Your task to perform on an android device: turn notification dots off Image 0: 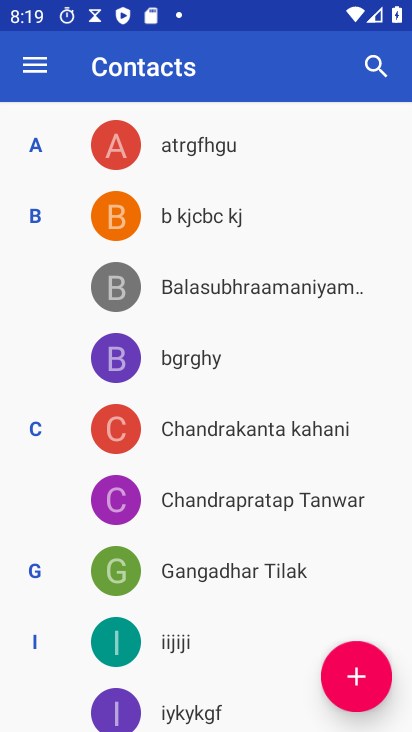
Step 0: press home button
Your task to perform on an android device: turn notification dots off Image 1: 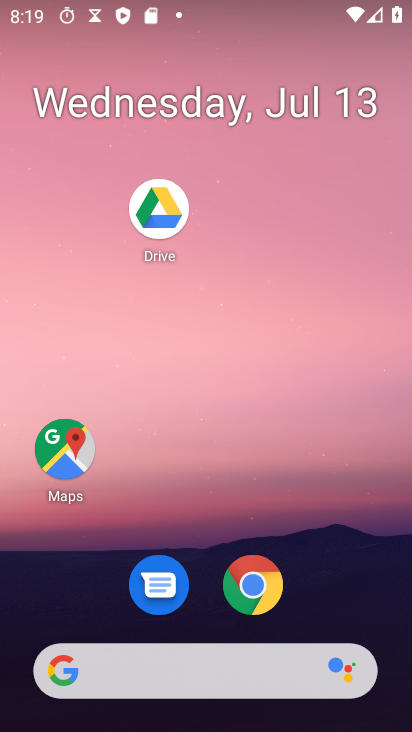
Step 1: drag from (188, 670) to (319, 21)
Your task to perform on an android device: turn notification dots off Image 2: 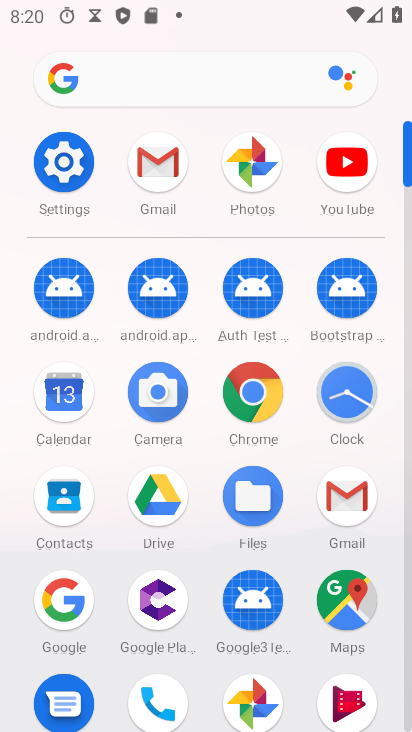
Step 2: click (66, 159)
Your task to perform on an android device: turn notification dots off Image 3: 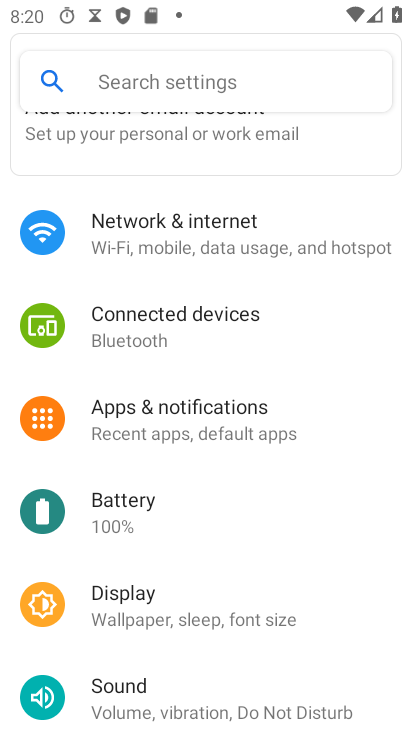
Step 3: click (256, 402)
Your task to perform on an android device: turn notification dots off Image 4: 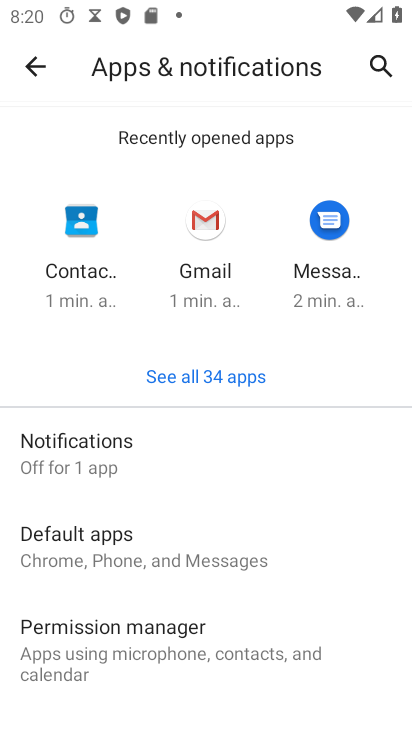
Step 4: click (92, 455)
Your task to perform on an android device: turn notification dots off Image 5: 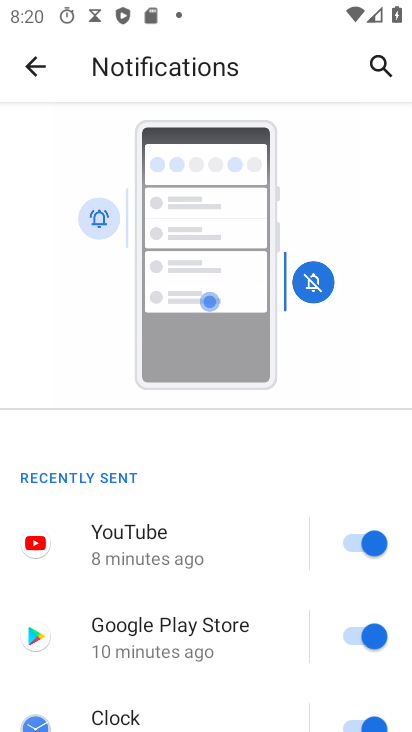
Step 5: drag from (220, 689) to (325, 123)
Your task to perform on an android device: turn notification dots off Image 6: 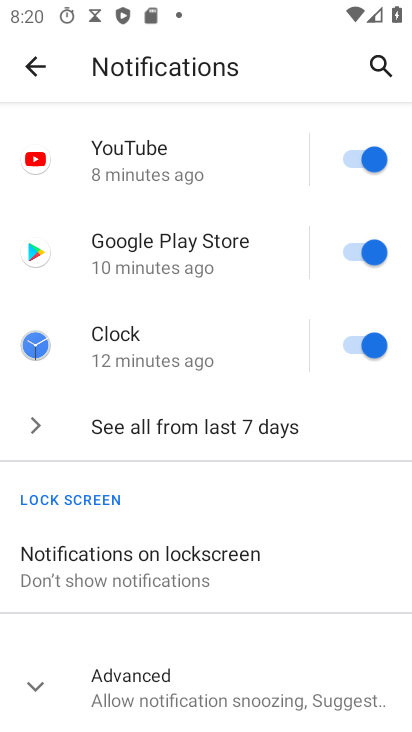
Step 6: click (130, 679)
Your task to perform on an android device: turn notification dots off Image 7: 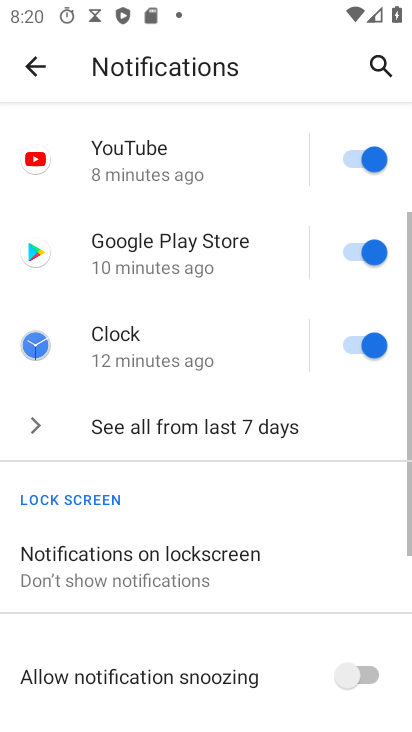
Step 7: drag from (238, 650) to (328, 67)
Your task to perform on an android device: turn notification dots off Image 8: 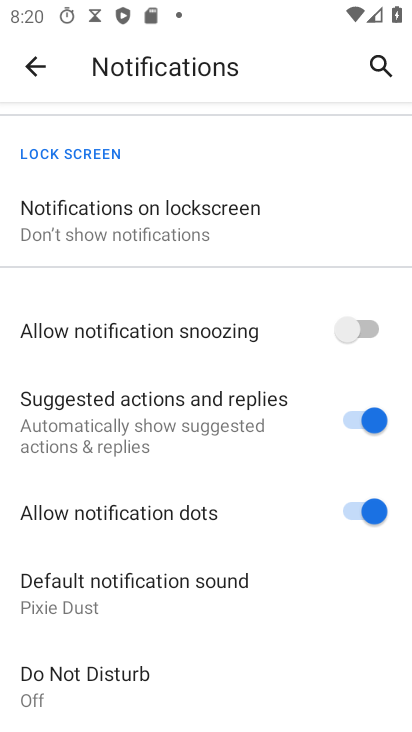
Step 8: click (353, 509)
Your task to perform on an android device: turn notification dots off Image 9: 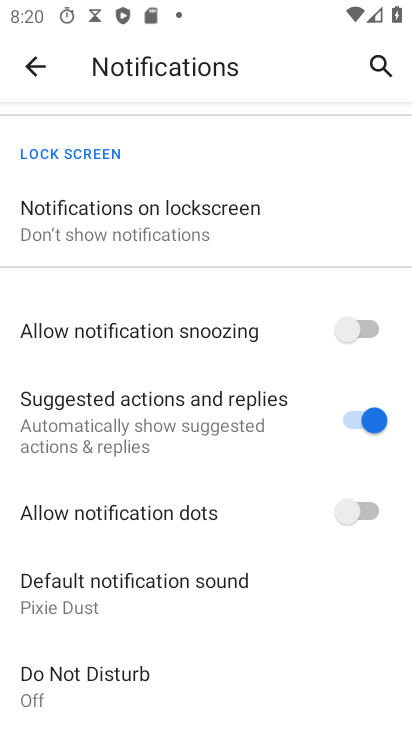
Step 9: task complete